Your task to perform on an android device: turn on priority inbox in the gmail app Image 0: 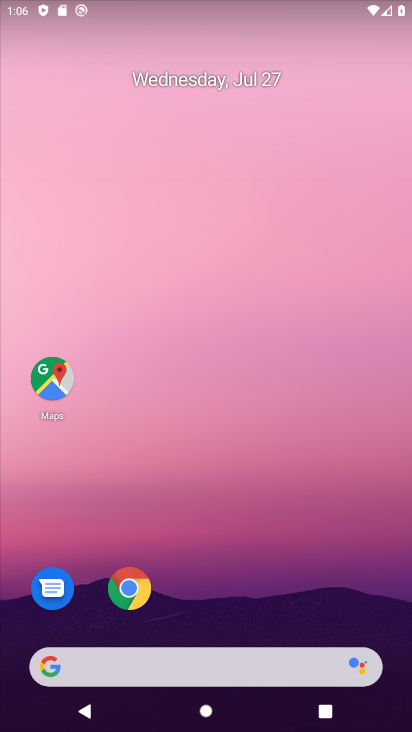
Step 0: drag from (243, 607) to (214, 133)
Your task to perform on an android device: turn on priority inbox in the gmail app Image 1: 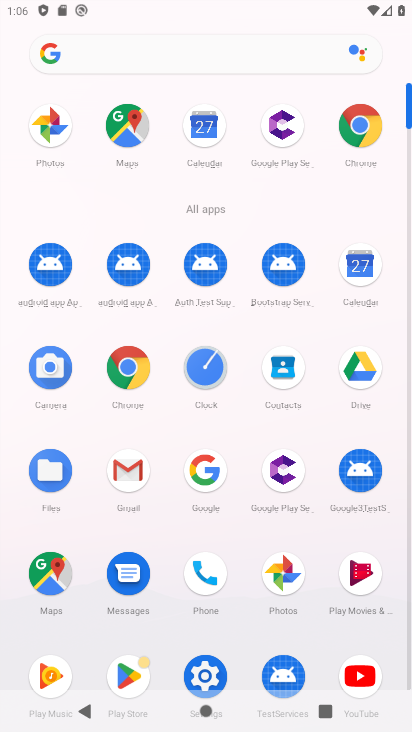
Step 1: click (126, 467)
Your task to perform on an android device: turn on priority inbox in the gmail app Image 2: 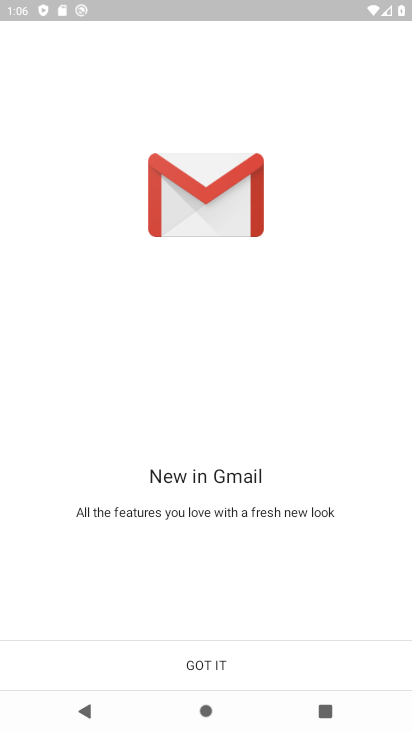
Step 2: click (263, 672)
Your task to perform on an android device: turn on priority inbox in the gmail app Image 3: 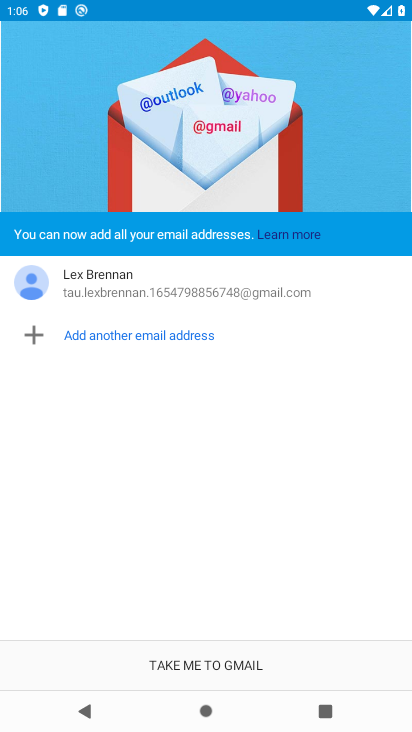
Step 3: click (264, 671)
Your task to perform on an android device: turn on priority inbox in the gmail app Image 4: 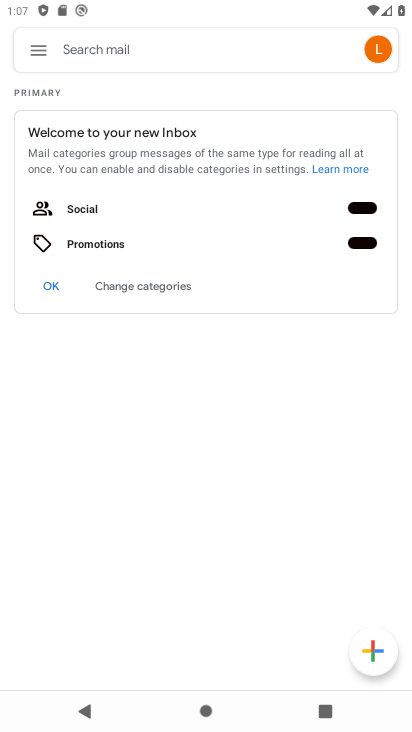
Step 4: click (39, 36)
Your task to perform on an android device: turn on priority inbox in the gmail app Image 5: 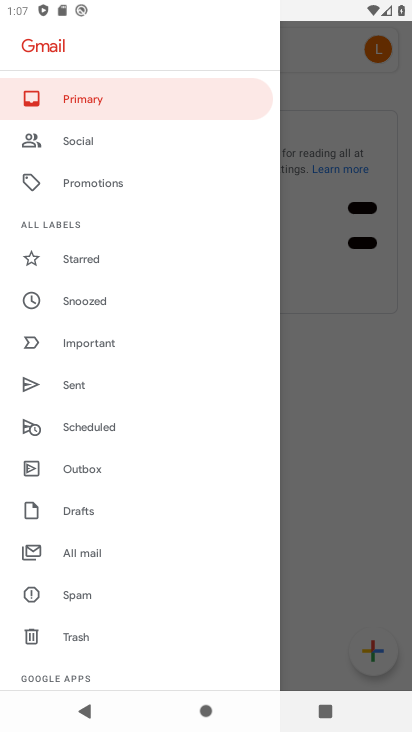
Step 5: drag from (148, 642) to (160, 286)
Your task to perform on an android device: turn on priority inbox in the gmail app Image 6: 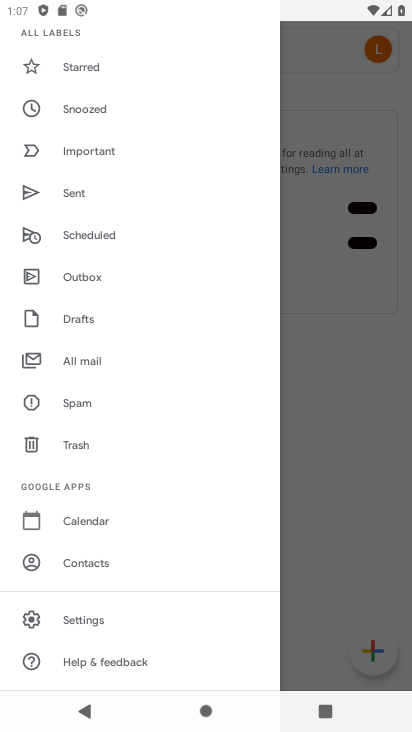
Step 6: click (128, 613)
Your task to perform on an android device: turn on priority inbox in the gmail app Image 7: 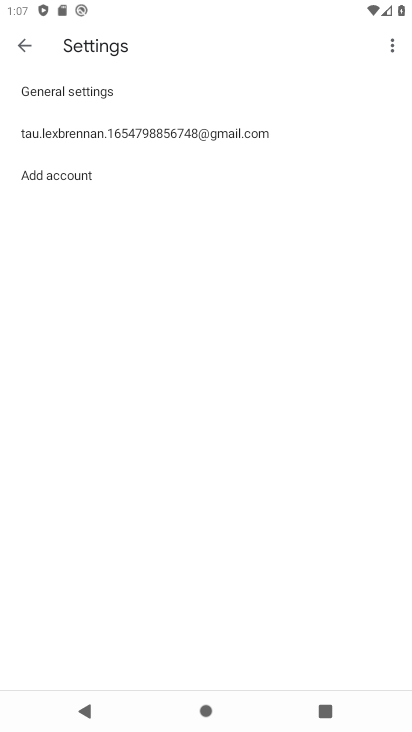
Step 7: click (145, 138)
Your task to perform on an android device: turn on priority inbox in the gmail app Image 8: 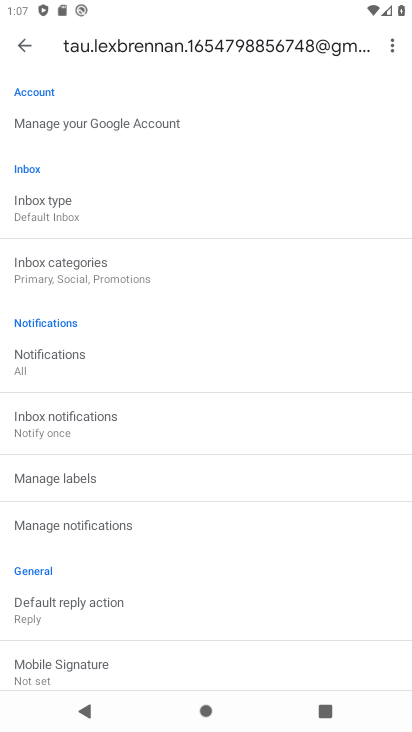
Step 8: click (102, 214)
Your task to perform on an android device: turn on priority inbox in the gmail app Image 9: 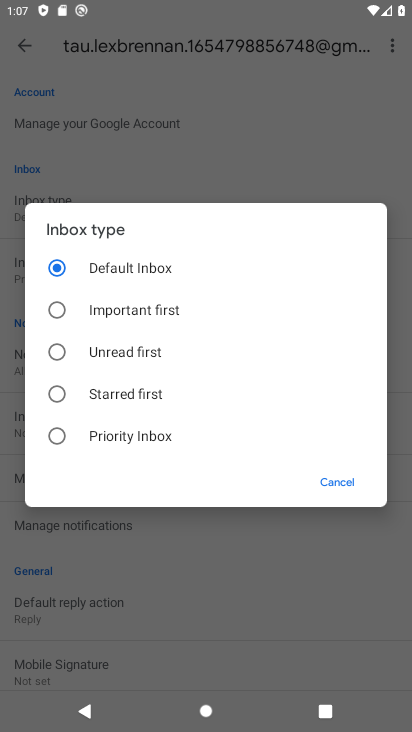
Step 9: click (131, 433)
Your task to perform on an android device: turn on priority inbox in the gmail app Image 10: 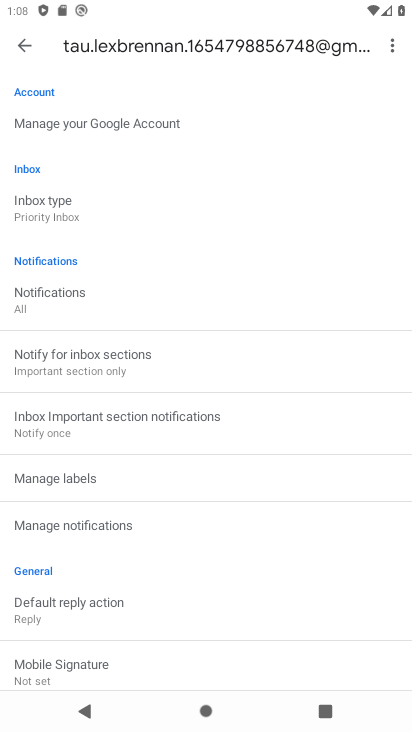
Step 10: task complete